Your task to perform on an android device: Open Chrome and go to settings Image 0: 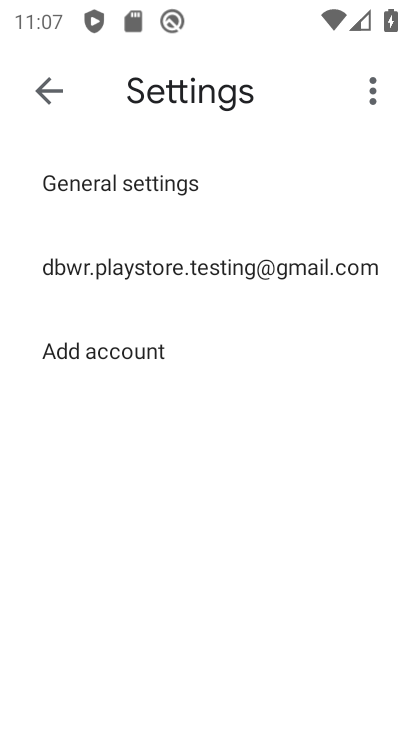
Step 0: click (42, 85)
Your task to perform on an android device: Open Chrome and go to settings Image 1: 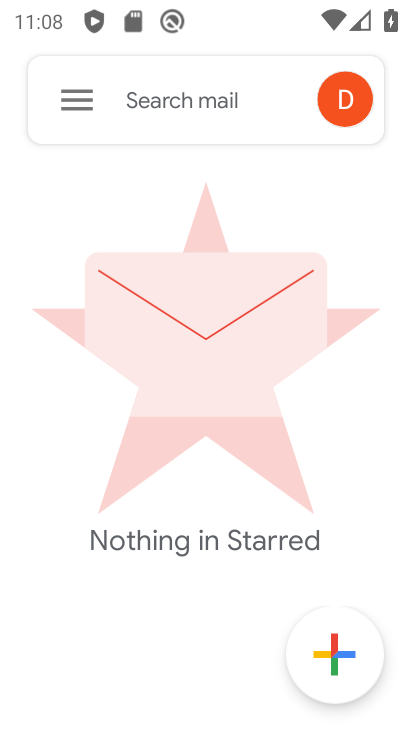
Step 1: press back button
Your task to perform on an android device: Open Chrome and go to settings Image 2: 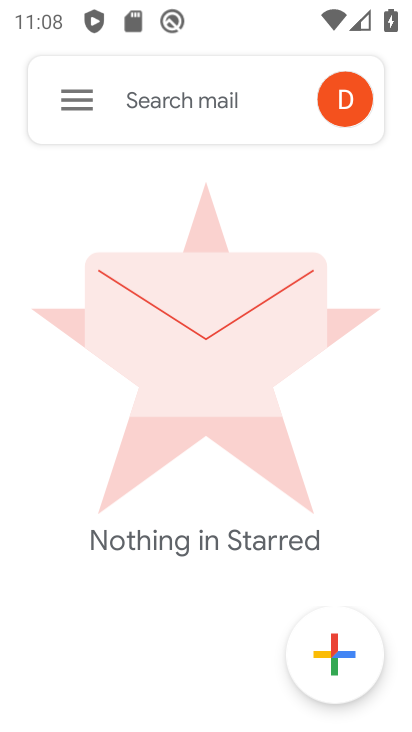
Step 2: press back button
Your task to perform on an android device: Open Chrome and go to settings Image 3: 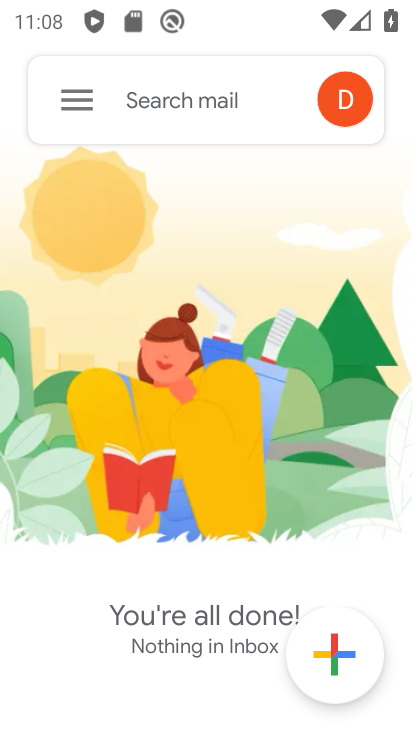
Step 3: press back button
Your task to perform on an android device: Open Chrome and go to settings Image 4: 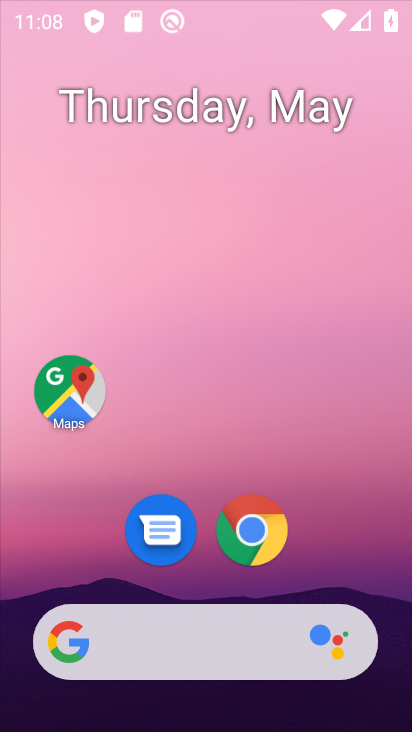
Step 4: press back button
Your task to perform on an android device: Open Chrome and go to settings Image 5: 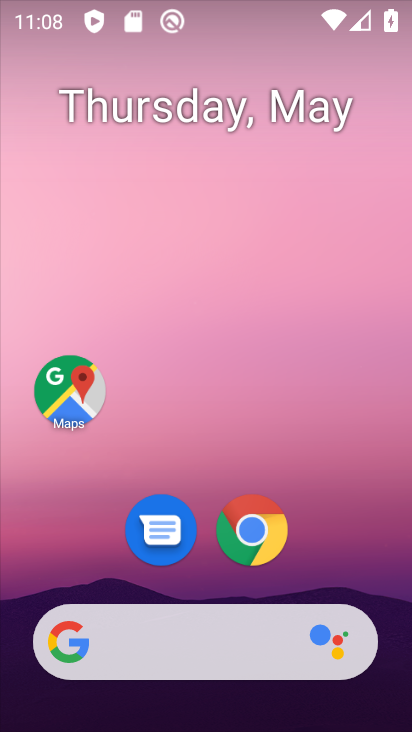
Step 5: press back button
Your task to perform on an android device: Open Chrome and go to settings Image 6: 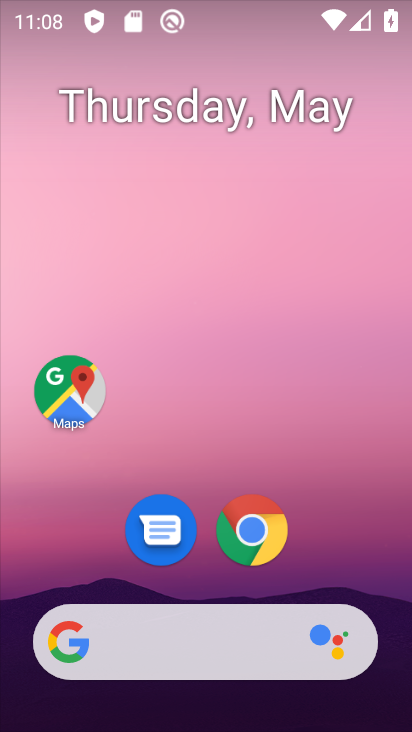
Step 6: drag from (327, 689) to (132, 174)
Your task to perform on an android device: Open Chrome and go to settings Image 7: 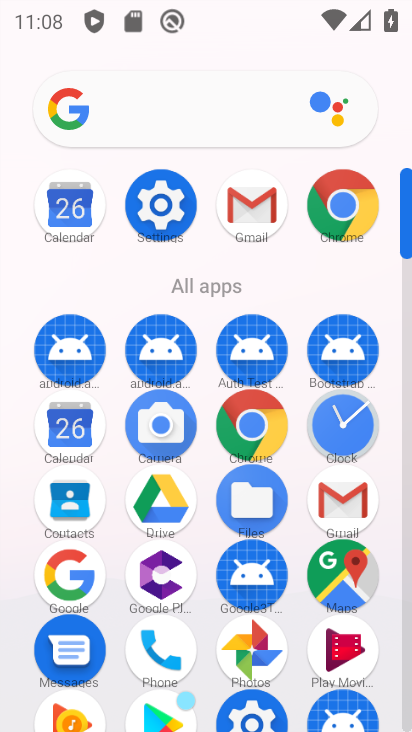
Step 7: drag from (280, 526) to (248, 217)
Your task to perform on an android device: Open Chrome and go to settings Image 8: 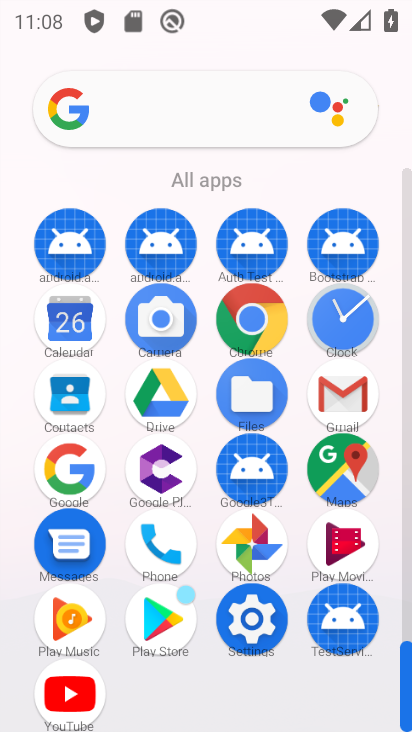
Step 8: click (253, 318)
Your task to perform on an android device: Open Chrome and go to settings Image 9: 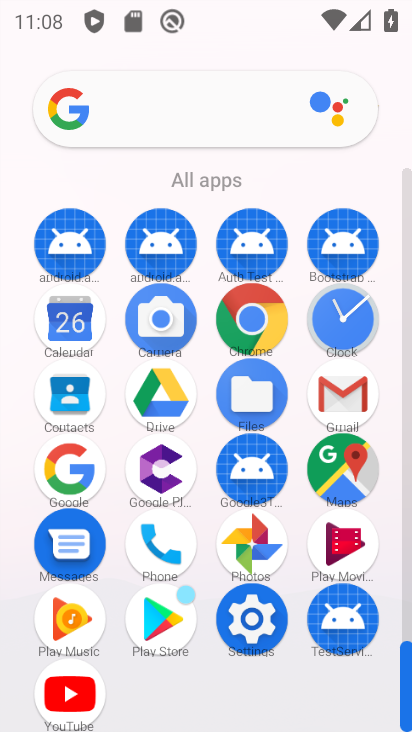
Step 9: click (254, 318)
Your task to perform on an android device: Open Chrome and go to settings Image 10: 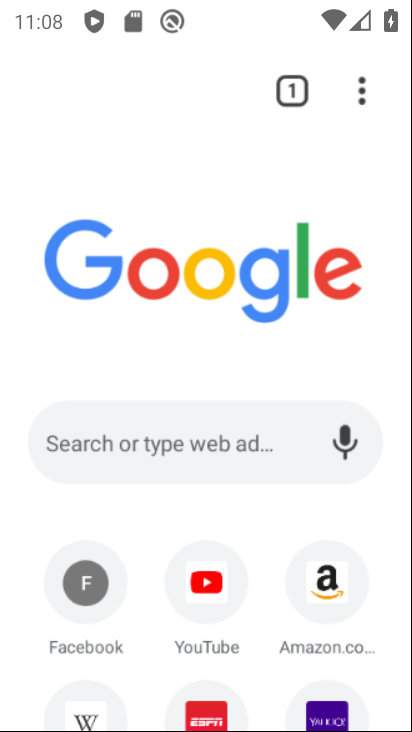
Step 10: click (256, 319)
Your task to perform on an android device: Open Chrome and go to settings Image 11: 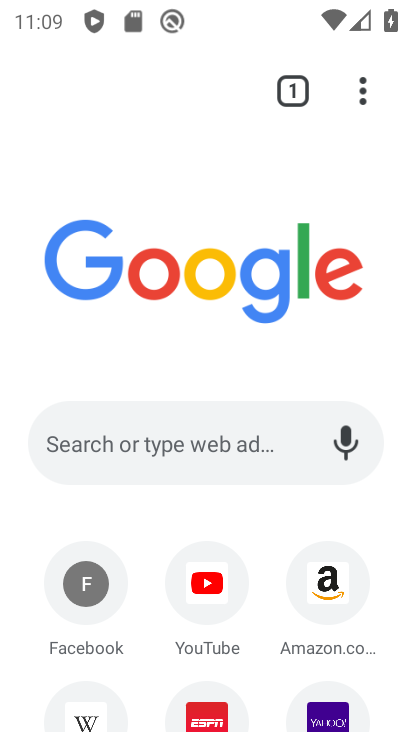
Step 11: drag from (252, 615) to (231, 447)
Your task to perform on an android device: Open Chrome and go to settings Image 12: 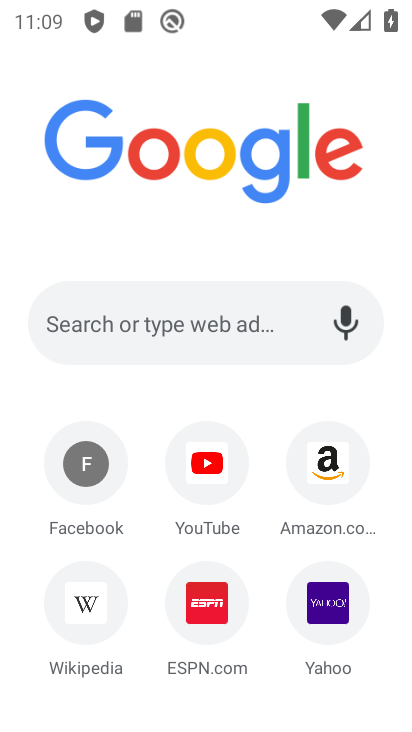
Step 12: drag from (221, 565) to (211, 396)
Your task to perform on an android device: Open Chrome and go to settings Image 13: 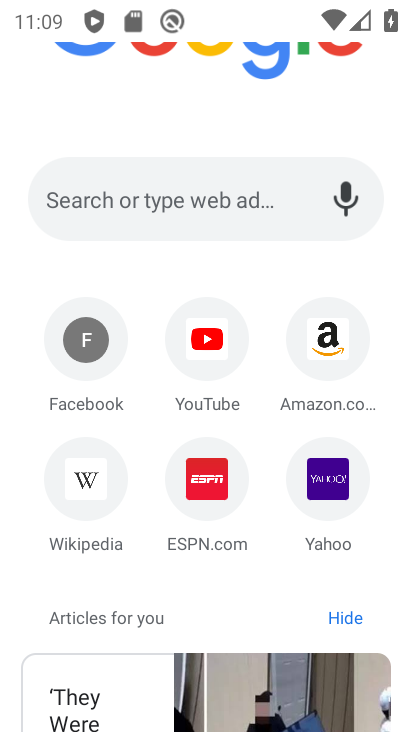
Step 13: drag from (303, 203) to (190, 680)
Your task to perform on an android device: Open Chrome and go to settings Image 14: 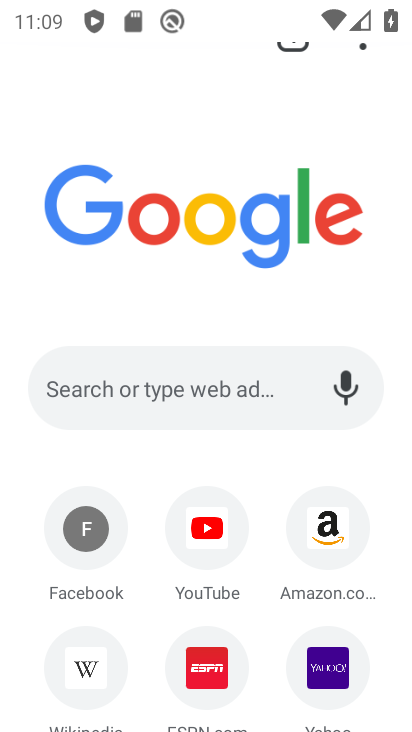
Step 14: drag from (128, 445) to (144, 643)
Your task to perform on an android device: Open Chrome and go to settings Image 15: 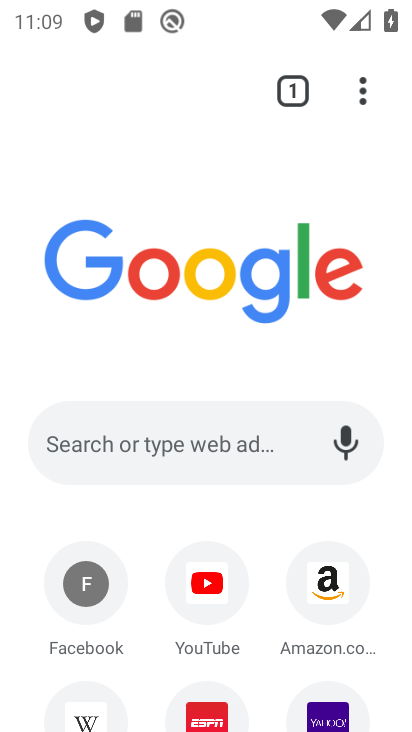
Step 15: click (356, 99)
Your task to perform on an android device: Open Chrome and go to settings Image 16: 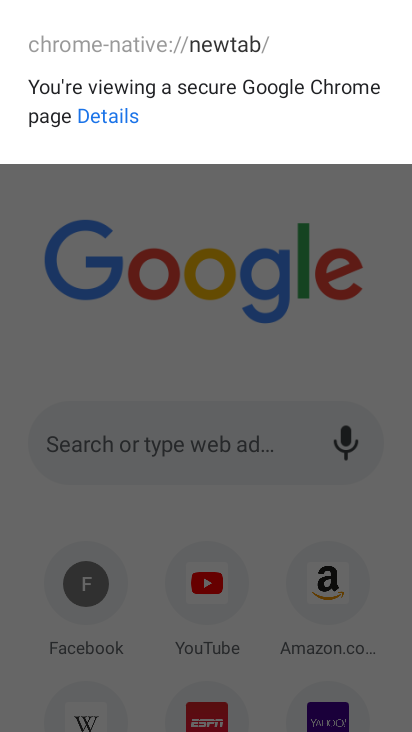
Step 16: click (326, 202)
Your task to perform on an android device: Open Chrome and go to settings Image 17: 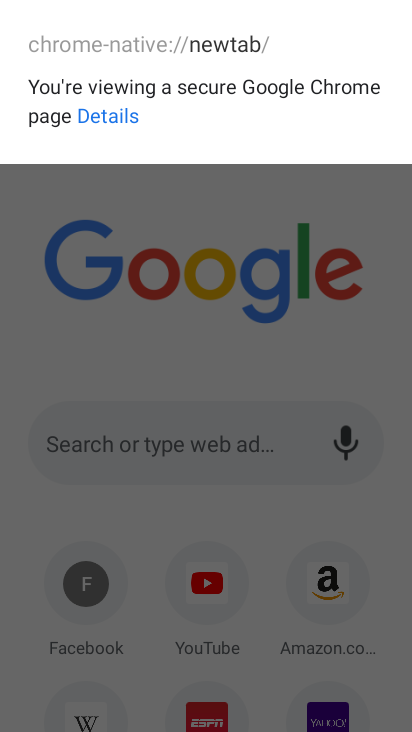
Step 17: click (327, 201)
Your task to perform on an android device: Open Chrome and go to settings Image 18: 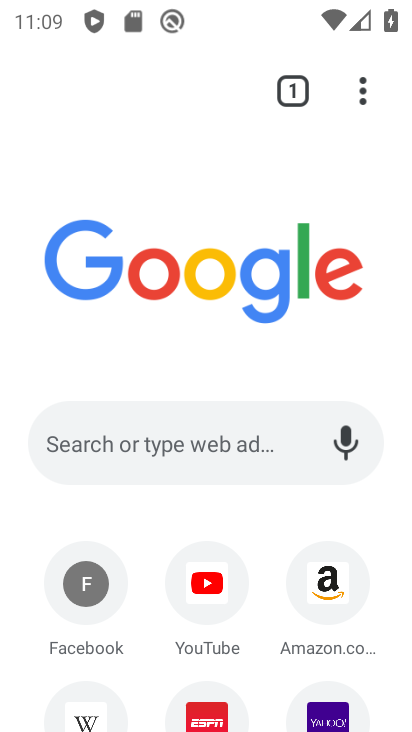
Step 18: click (354, 103)
Your task to perform on an android device: Open Chrome and go to settings Image 19: 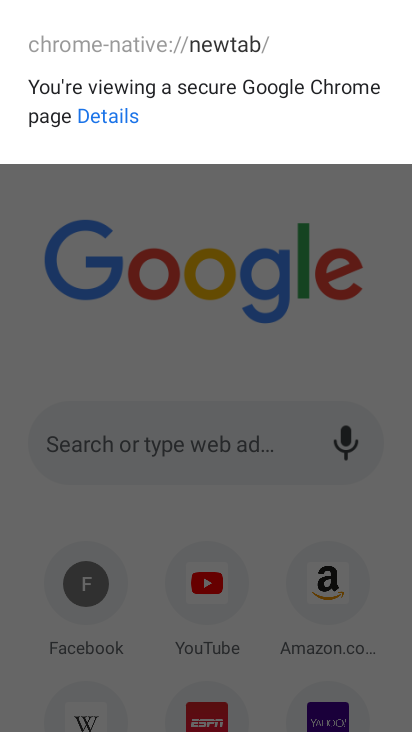
Step 19: click (343, 211)
Your task to perform on an android device: Open Chrome and go to settings Image 20: 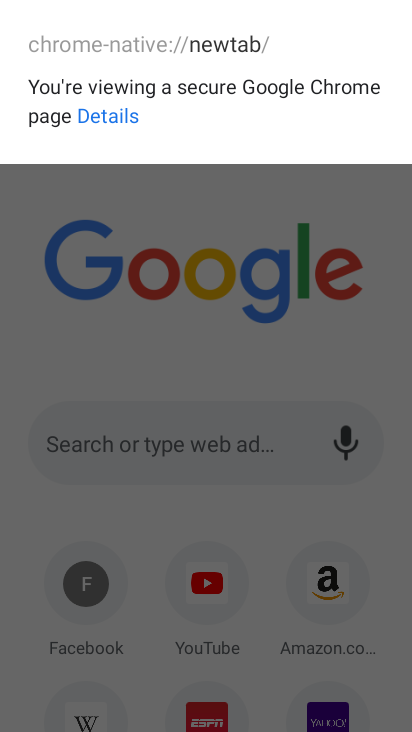
Step 20: click (344, 194)
Your task to perform on an android device: Open Chrome and go to settings Image 21: 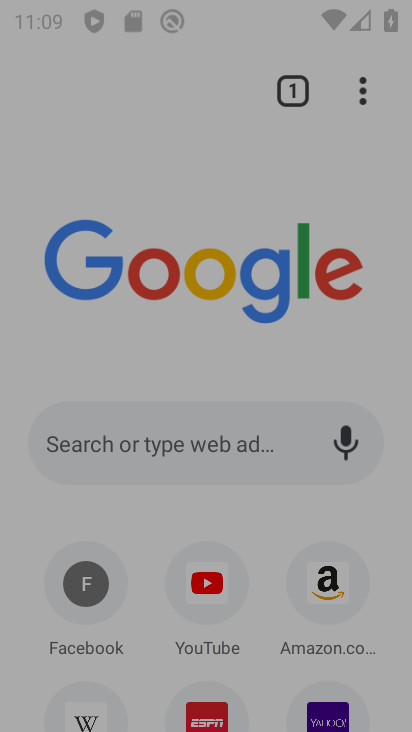
Step 21: click (340, 187)
Your task to perform on an android device: Open Chrome and go to settings Image 22: 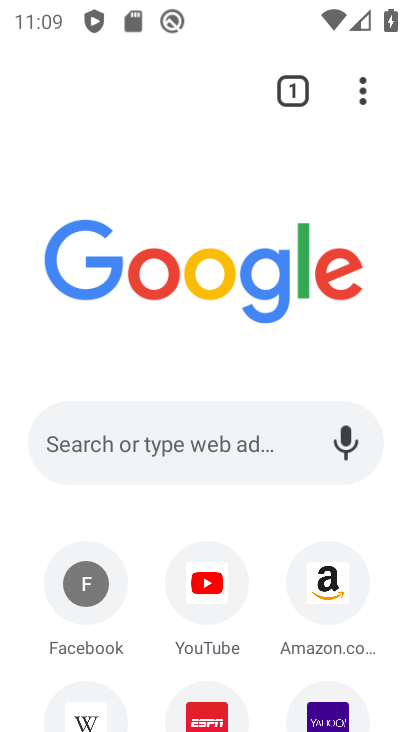
Step 22: click (340, 187)
Your task to perform on an android device: Open Chrome and go to settings Image 23: 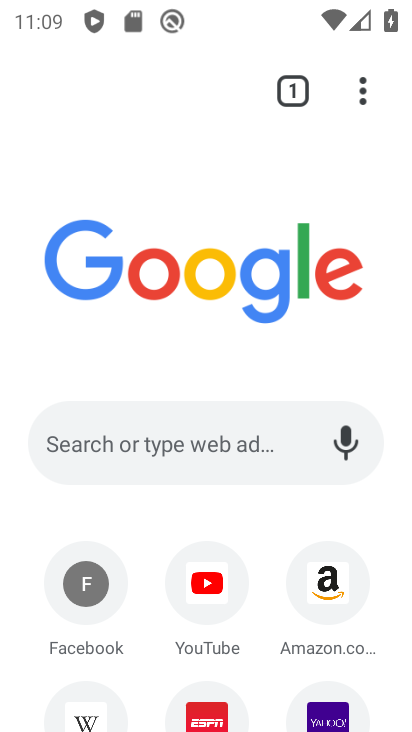
Step 23: drag from (353, 94) to (67, 560)
Your task to perform on an android device: Open Chrome and go to settings Image 24: 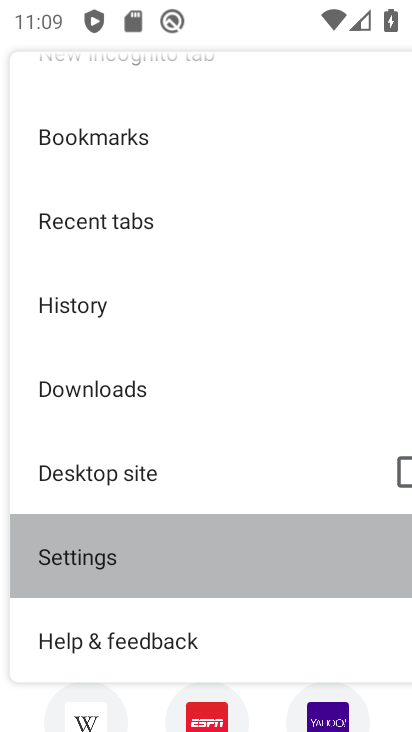
Step 24: click (68, 551)
Your task to perform on an android device: Open Chrome and go to settings Image 25: 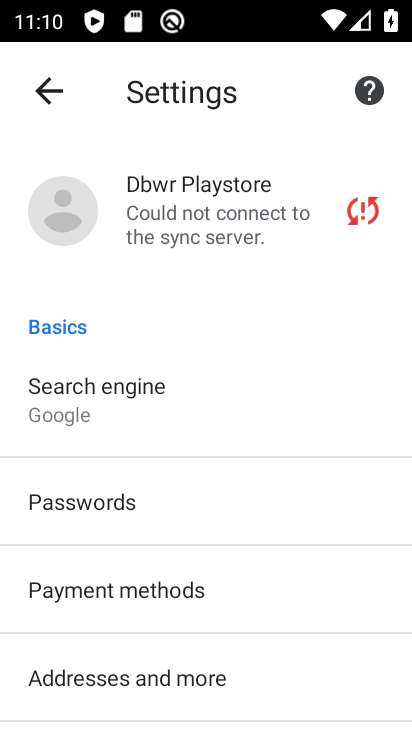
Step 25: task complete